Your task to perform on an android device: turn on sleep mode Image 0: 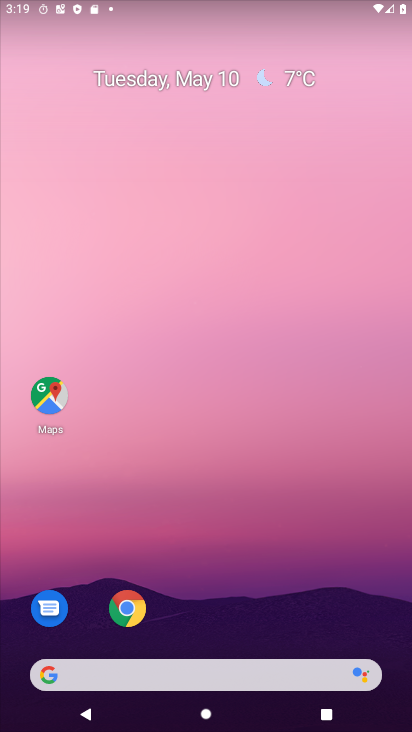
Step 0: drag from (322, 631) to (302, 4)
Your task to perform on an android device: turn on sleep mode Image 1: 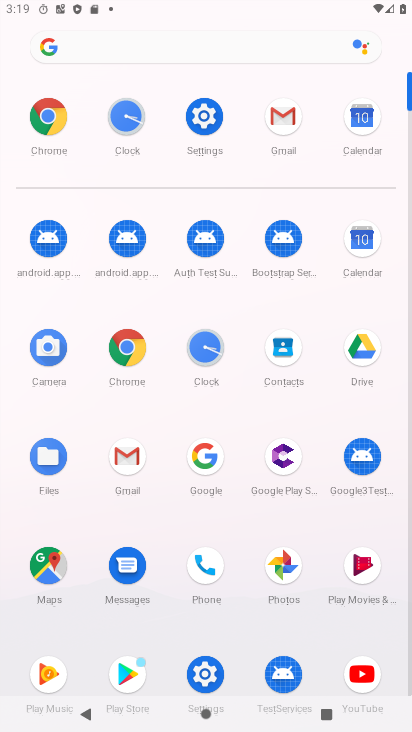
Step 1: click (198, 124)
Your task to perform on an android device: turn on sleep mode Image 2: 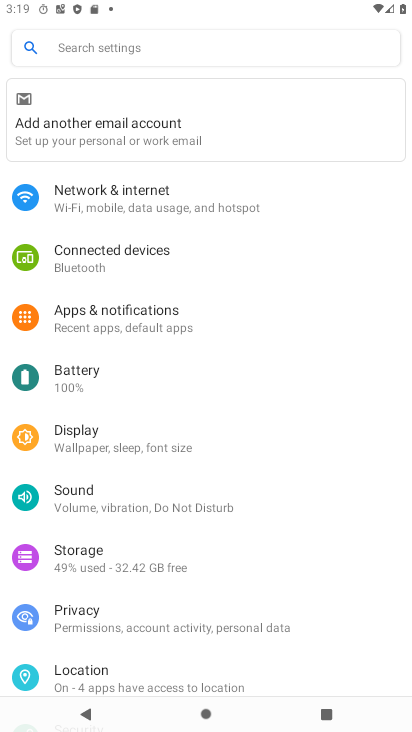
Step 2: click (96, 441)
Your task to perform on an android device: turn on sleep mode Image 3: 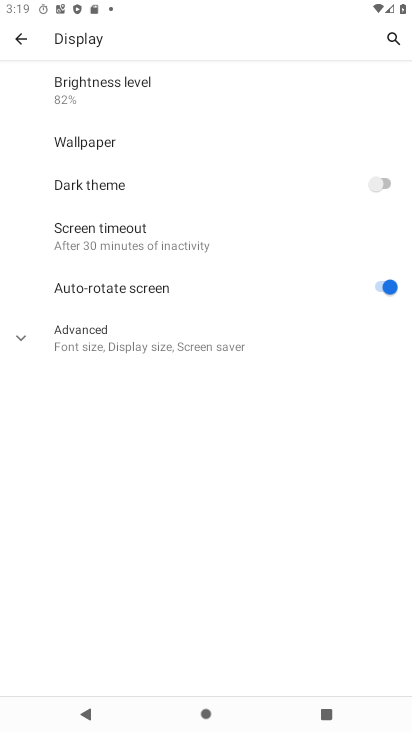
Step 3: click (25, 346)
Your task to perform on an android device: turn on sleep mode Image 4: 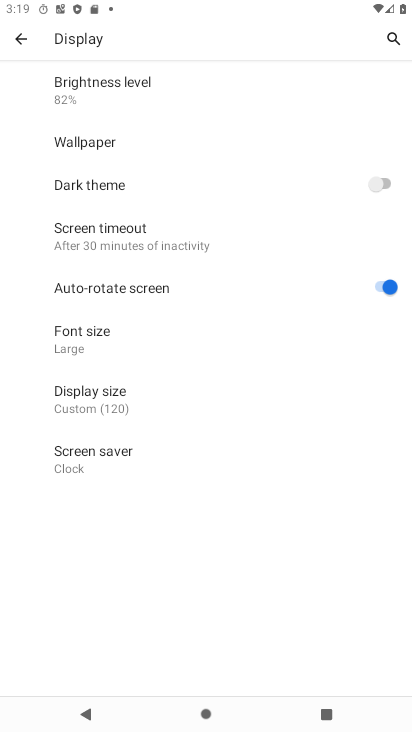
Step 4: task complete